Your task to perform on an android device: change alarm snooze length Image 0: 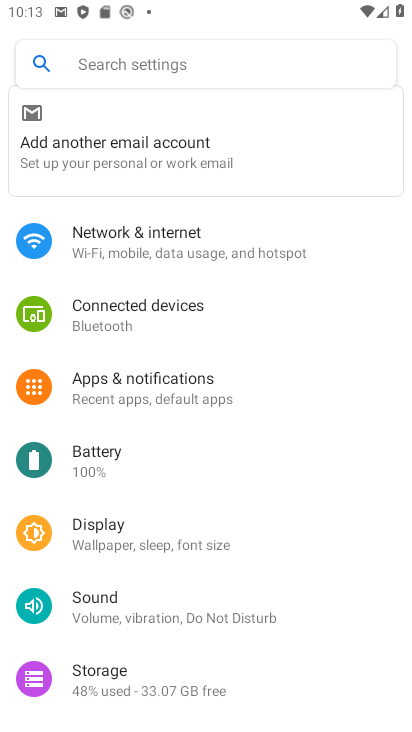
Step 0: press home button
Your task to perform on an android device: change alarm snooze length Image 1: 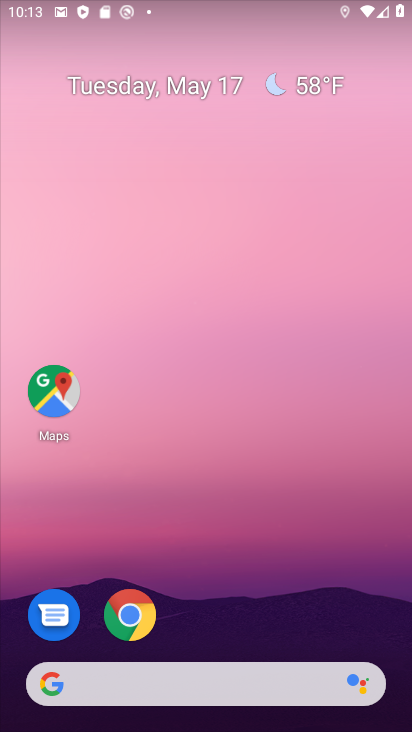
Step 1: drag from (223, 559) to (223, 146)
Your task to perform on an android device: change alarm snooze length Image 2: 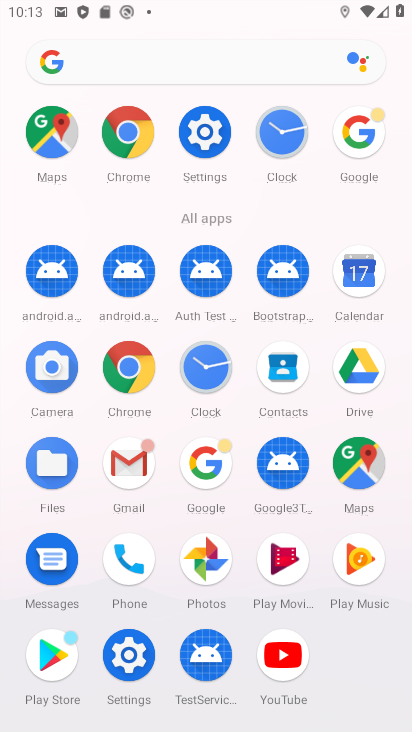
Step 2: click (284, 140)
Your task to perform on an android device: change alarm snooze length Image 3: 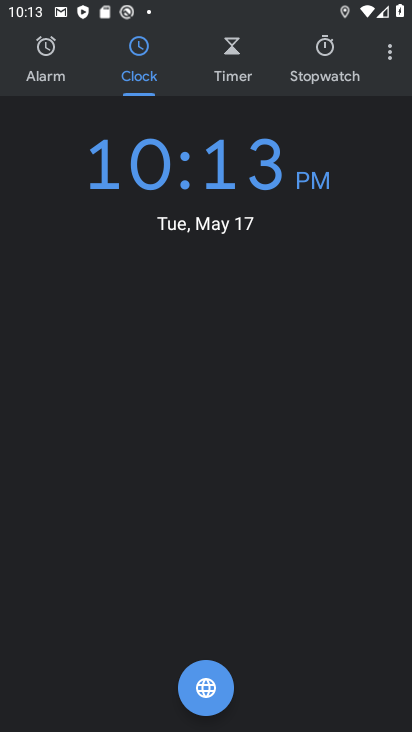
Step 3: click (387, 61)
Your task to perform on an android device: change alarm snooze length Image 4: 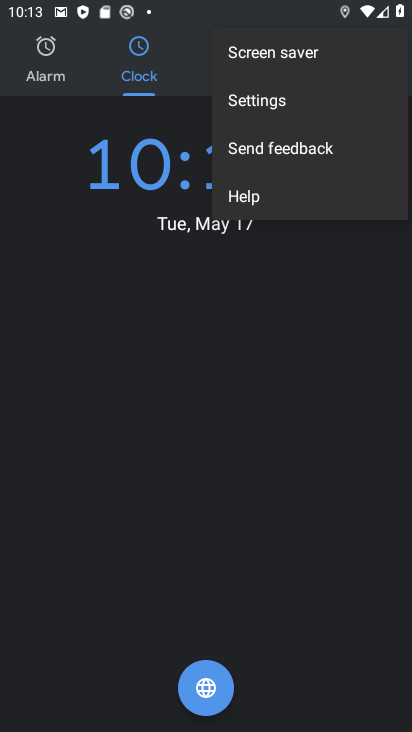
Step 4: click (248, 101)
Your task to perform on an android device: change alarm snooze length Image 5: 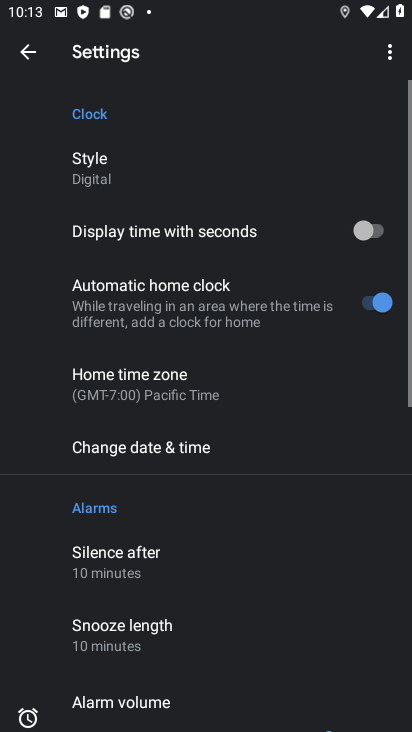
Step 5: drag from (178, 658) to (192, 429)
Your task to perform on an android device: change alarm snooze length Image 6: 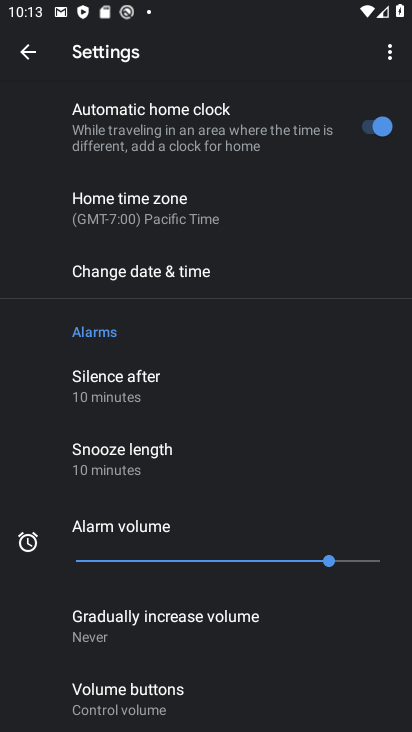
Step 6: click (142, 445)
Your task to perform on an android device: change alarm snooze length Image 7: 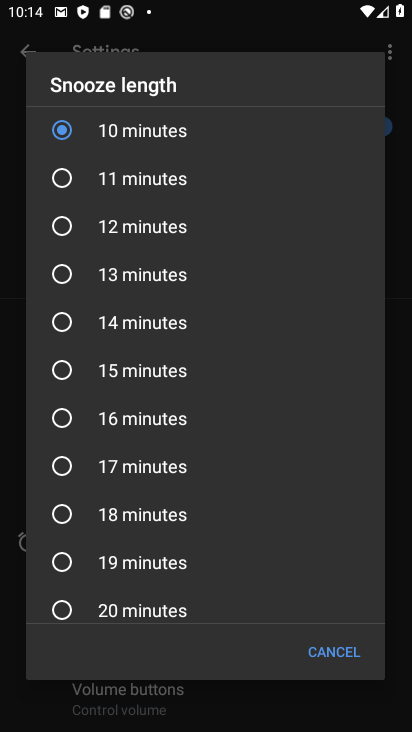
Step 7: click (186, 434)
Your task to perform on an android device: change alarm snooze length Image 8: 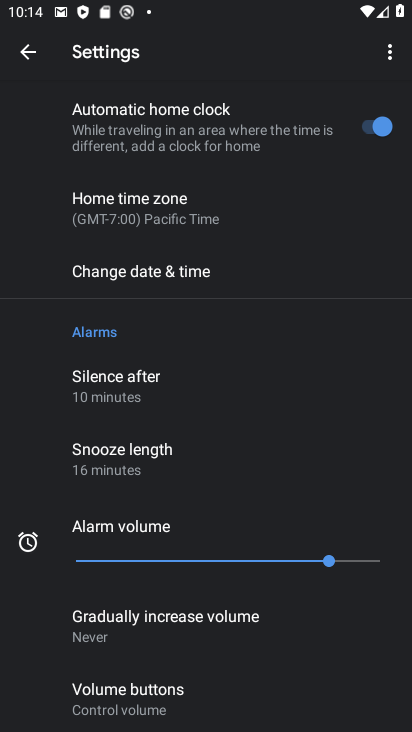
Step 8: task complete